Your task to perform on an android device: Open location settings Image 0: 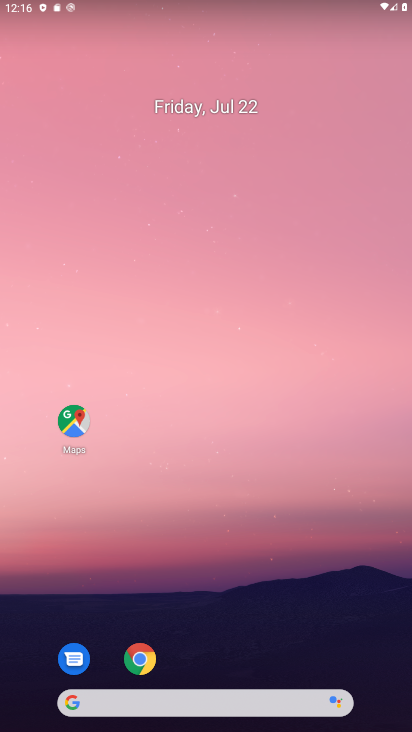
Step 0: drag from (242, 659) to (242, 22)
Your task to perform on an android device: Open location settings Image 1: 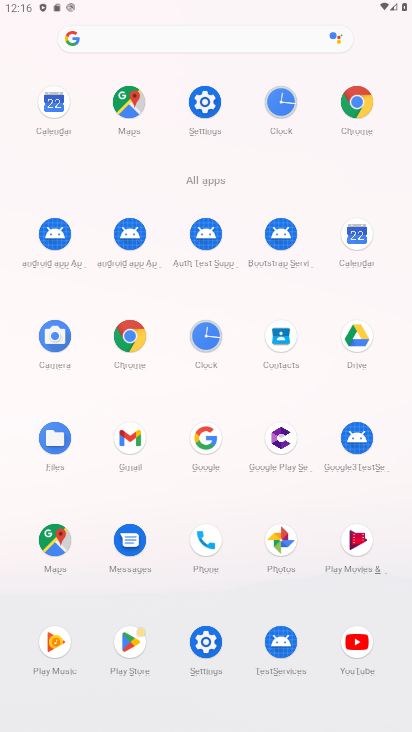
Step 1: click (210, 118)
Your task to perform on an android device: Open location settings Image 2: 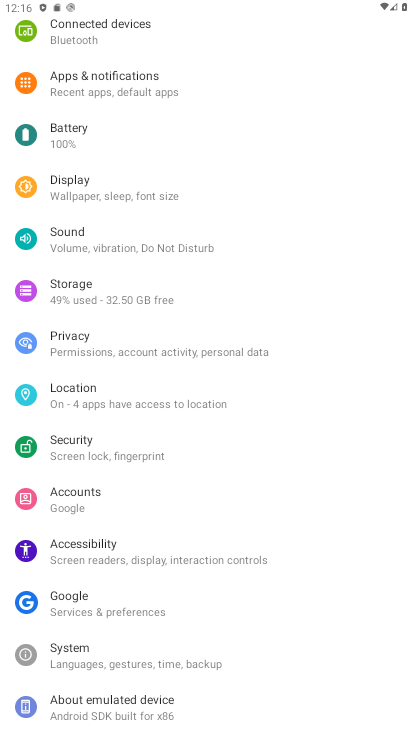
Step 2: task complete